Your task to perform on an android device: turn on sleep mode Image 0: 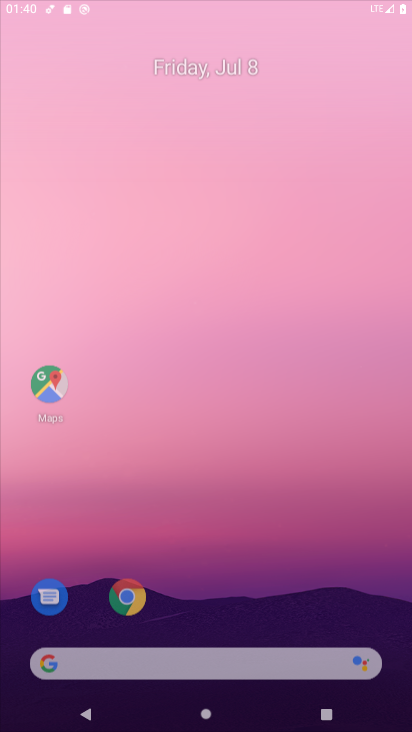
Step 0: drag from (222, 460) to (224, 198)
Your task to perform on an android device: turn on sleep mode Image 1: 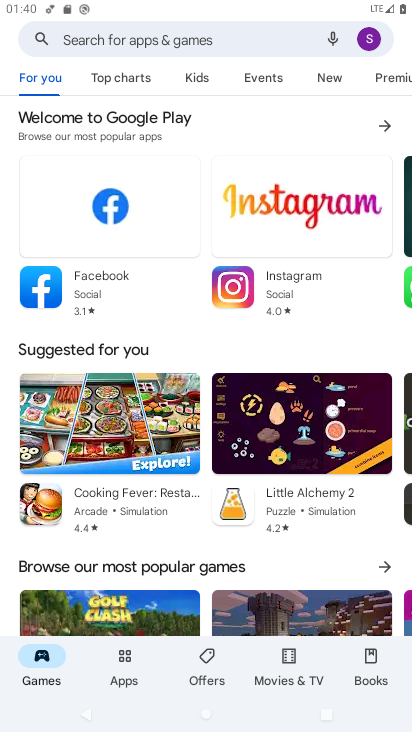
Step 1: press home button
Your task to perform on an android device: turn on sleep mode Image 2: 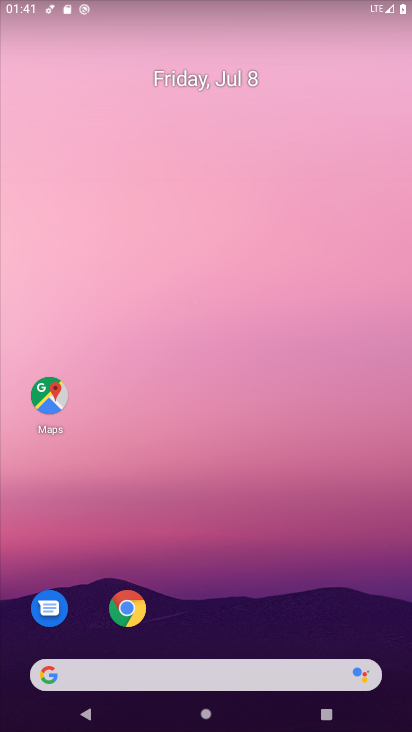
Step 2: drag from (262, 685) to (270, 269)
Your task to perform on an android device: turn on sleep mode Image 3: 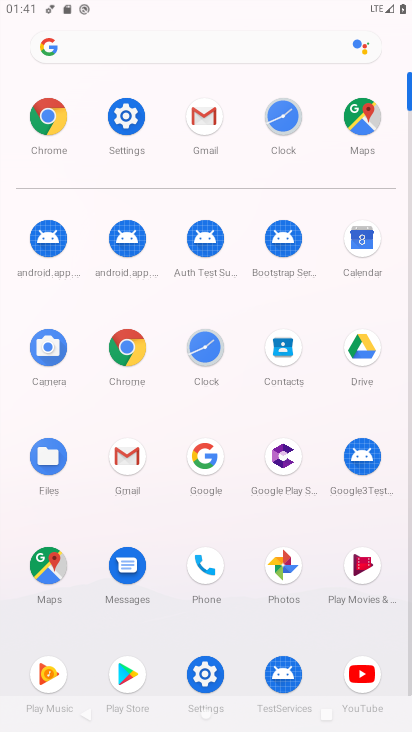
Step 3: click (127, 107)
Your task to perform on an android device: turn on sleep mode Image 4: 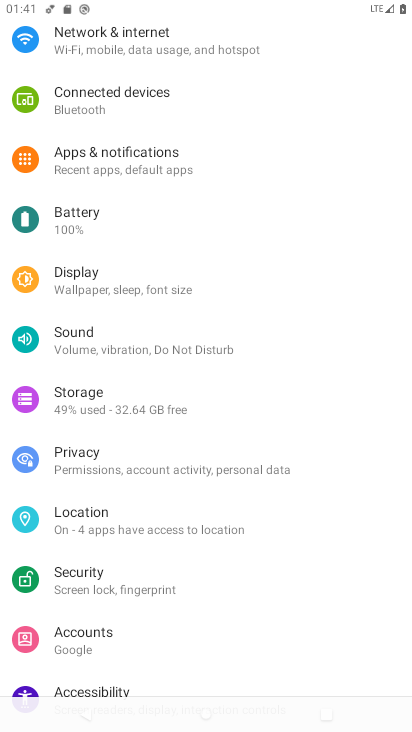
Step 4: task complete